Your task to perform on an android device: read, delete, or share a saved page in the chrome app Image 0: 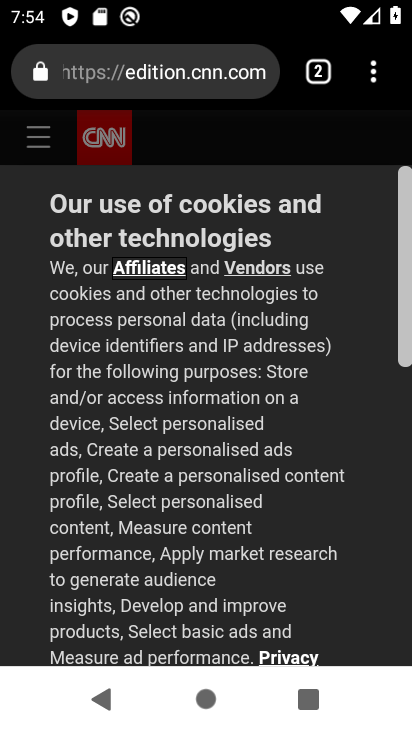
Step 0: click (371, 70)
Your task to perform on an android device: read, delete, or share a saved page in the chrome app Image 1: 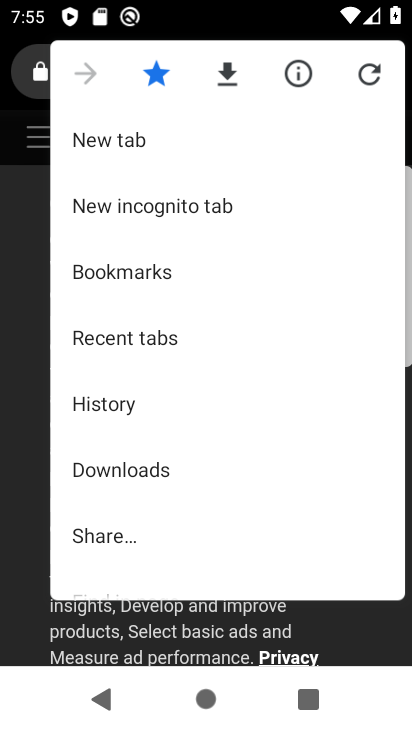
Step 1: click (129, 466)
Your task to perform on an android device: read, delete, or share a saved page in the chrome app Image 2: 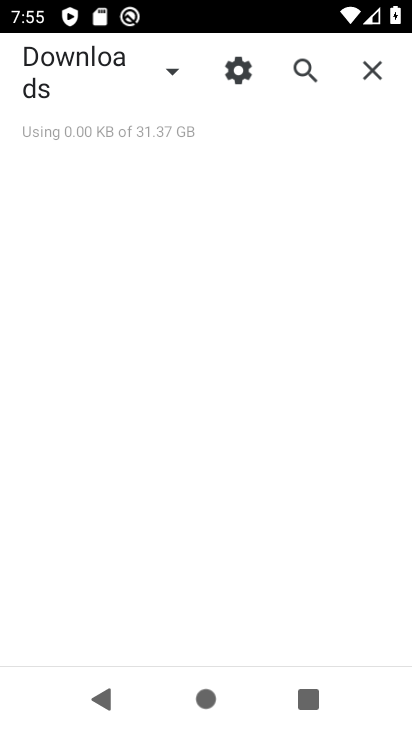
Step 2: click (162, 72)
Your task to perform on an android device: read, delete, or share a saved page in the chrome app Image 3: 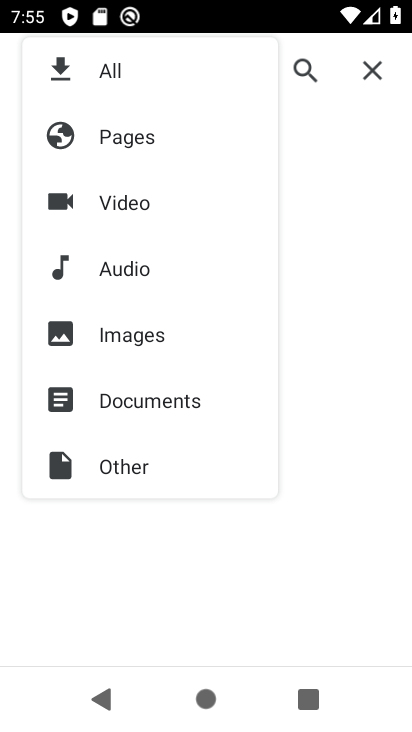
Step 3: click (119, 136)
Your task to perform on an android device: read, delete, or share a saved page in the chrome app Image 4: 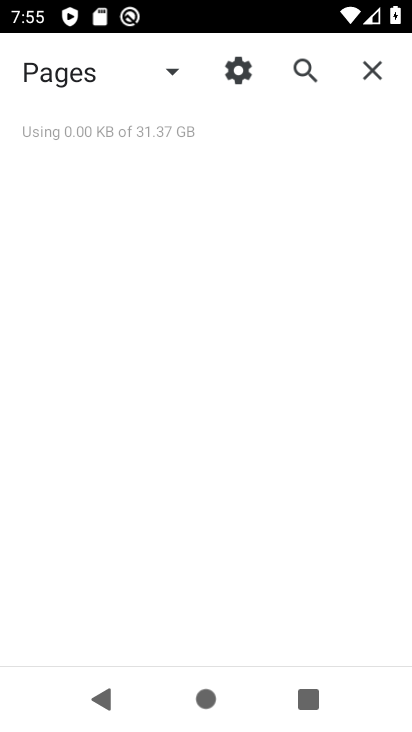
Step 4: task complete